Your task to perform on an android device: turn off wifi Image 0: 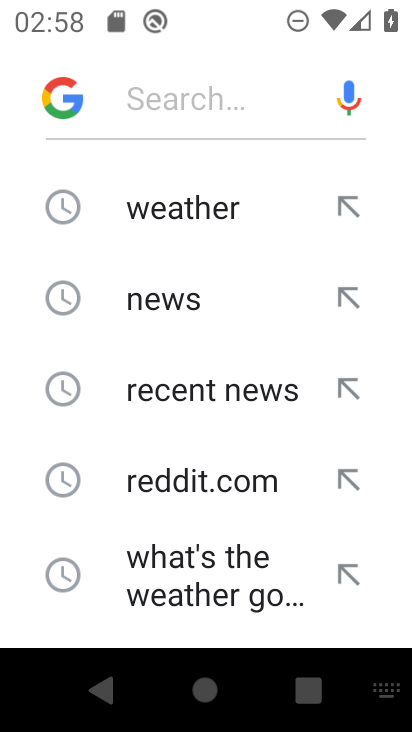
Step 0: press home button
Your task to perform on an android device: turn off wifi Image 1: 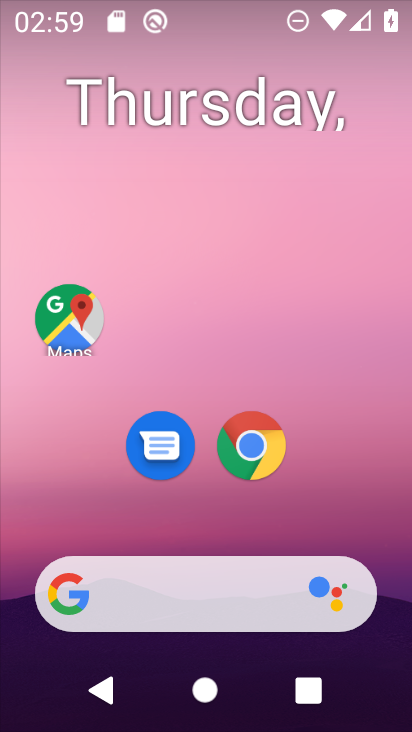
Step 1: drag from (117, 7) to (113, 325)
Your task to perform on an android device: turn off wifi Image 2: 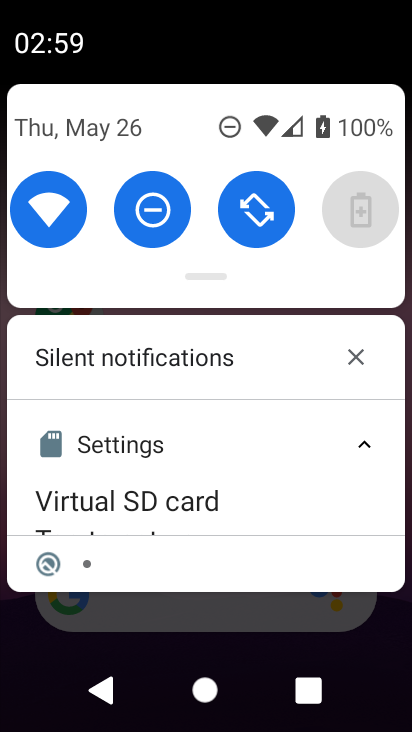
Step 2: click (67, 206)
Your task to perform on an android device: turn off wifi Image 3: 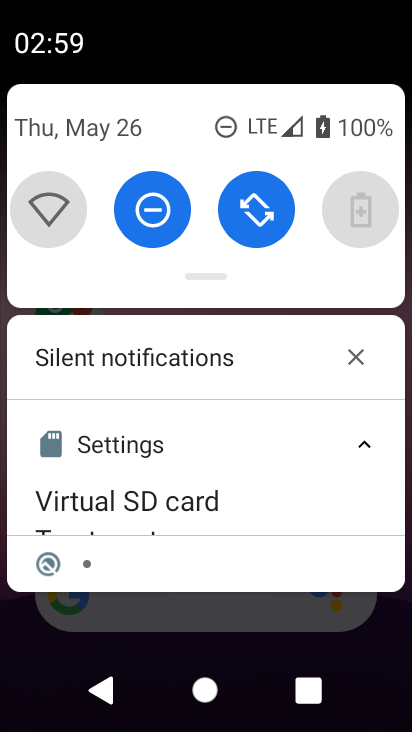
Step 3: task complete